Your task to perform on an android device: Search for Mexican restaurants on Maps Image 0: 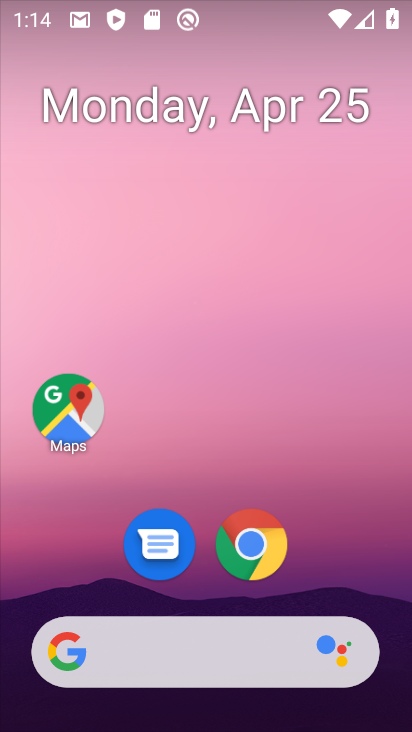
Step 0: click (66, 418)
Your task to perform on an android device: Search for Mexican restaurants on Maps Image 1: 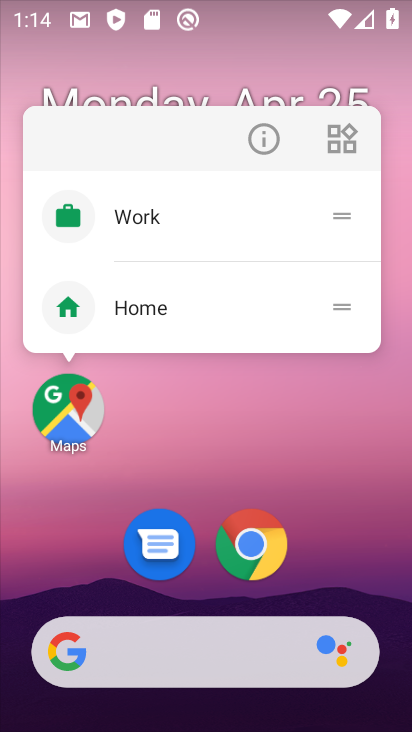
Step 1: drag from (29, 421) to (75, 421)
Your task to perform on an android device: Search for Mexican restaurants on Maps Image 2: 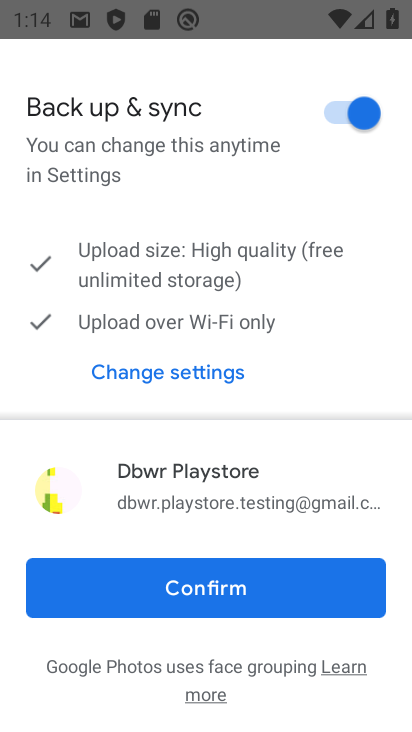
Step 2: press back button
Your task to perform on an android device: Search for Mexican restaurants on Maps Image 3: 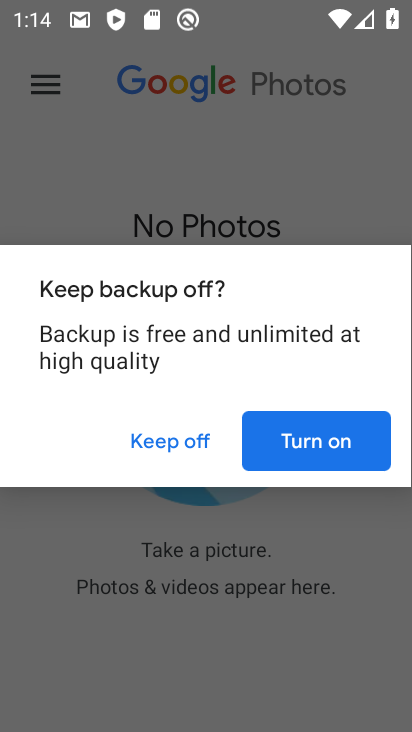
Step 3: press back button
Your task to perform on an android device: Search for Mexican restaurants on Maps Image 4: 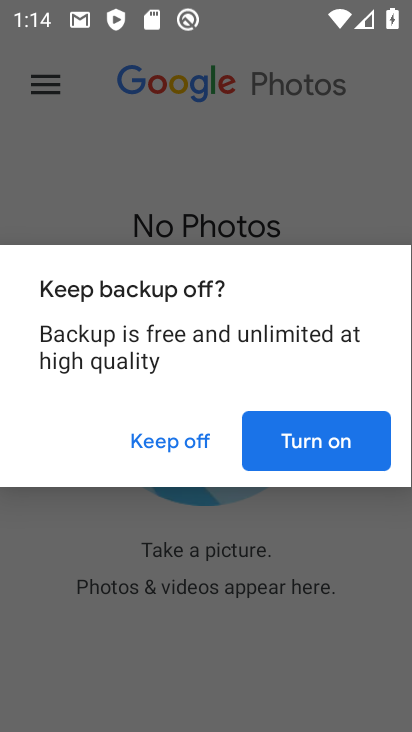
Step 4: click (174, 445)
Your task to perform on an android device: Search for Mexican restaurants on Maps Image 5: 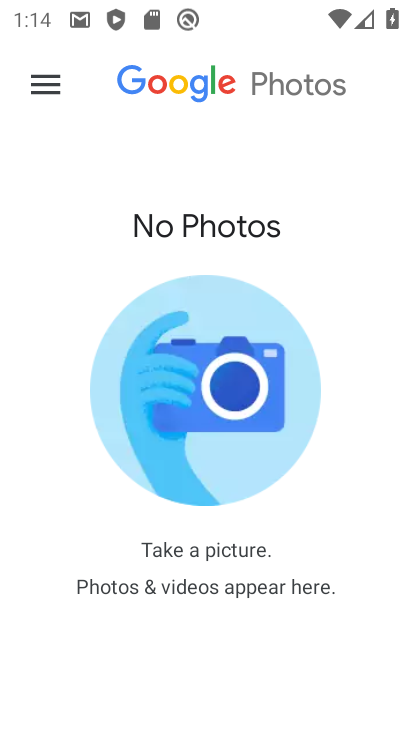
Step 5: press back button
Your task to perform on an android device: Search for Mexican restaurants on Maps Image 6: 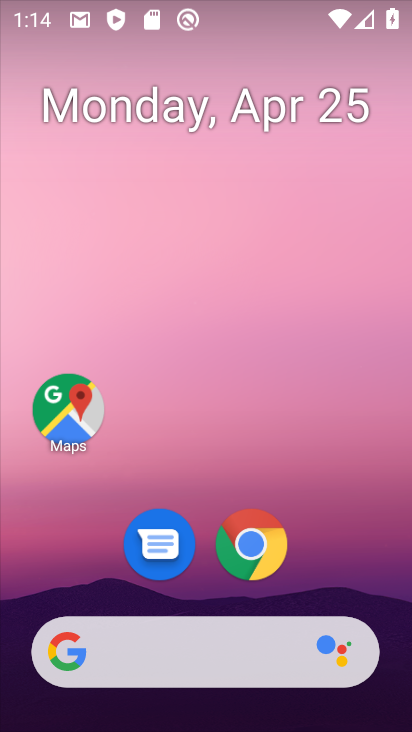
Step 6: click (68, 420)
Your task to perform on an android device: Search for Mexican restaurants on Maps Image 7: 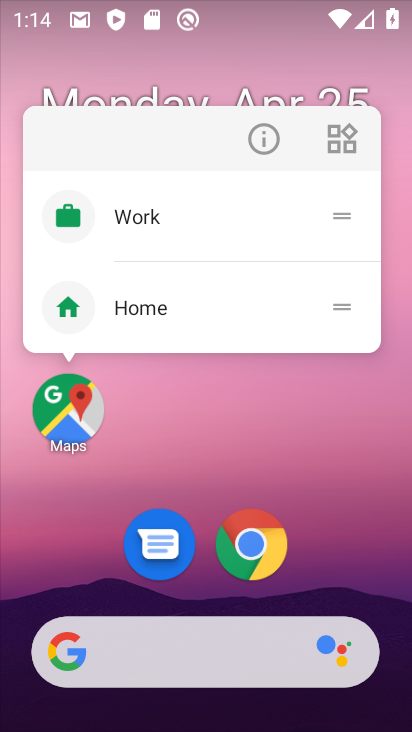
Step 7: click (83, 407)
Your task to perform on an android device: Search for Mexican restaurants on Maps Image 8: 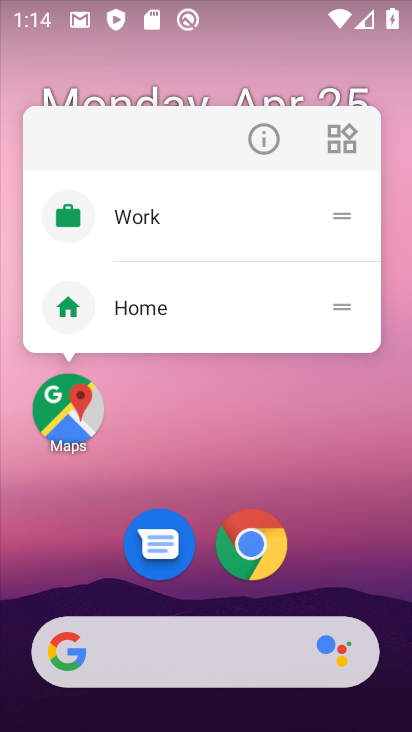
Step 8: click (83, 407)
Your task to perform on an android device: Search for Mexican restaurants on Maps Image 9: 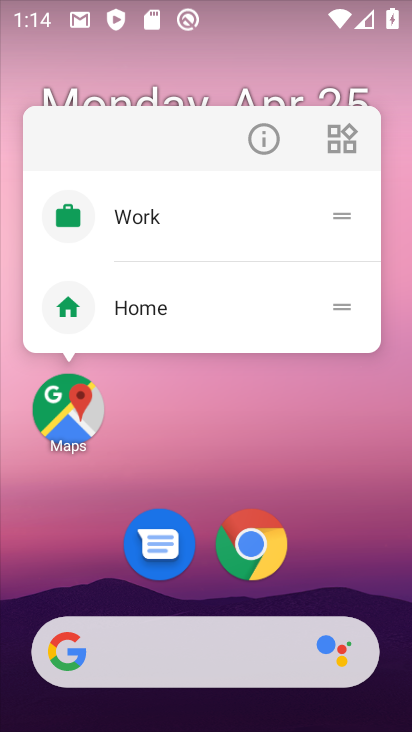
Step 9: click (80, 418)
Your task to perform on an android device: Search for Mexican restaurants on Maps Image 10: 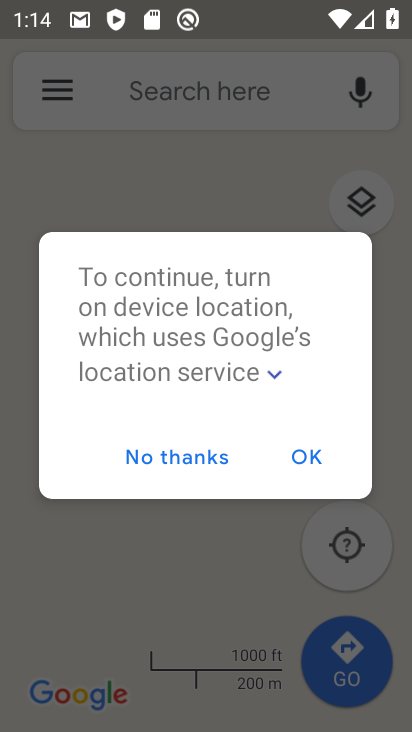
Step 10: click (329, 446)
Your task to perform on an android device: Search for Mexican restaurants on Maps Image 11: 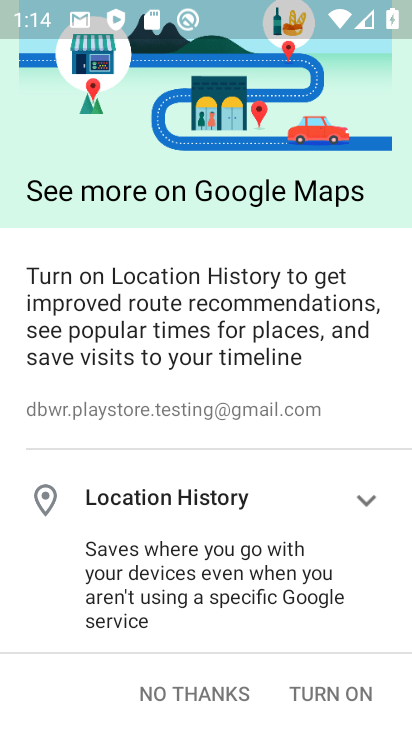
Step 11: click (239, 695)
Your task to perform on an android device: Search for Mexican restaurants on Maps Image 12: 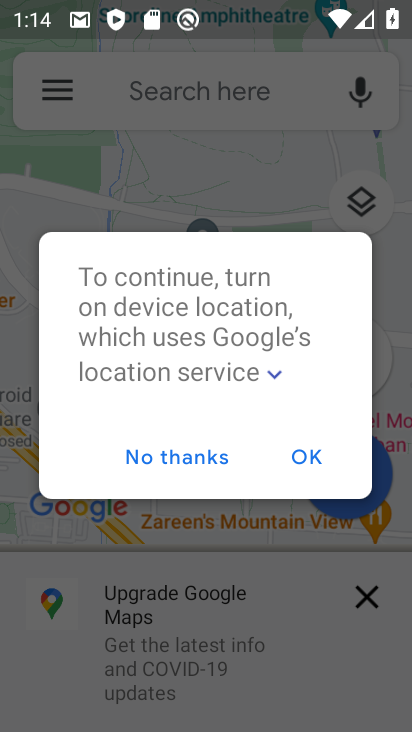
Step 12: click (334, 465)
Your task to perform on an android device: Search for Mexican restaurants on Maps Image 13: 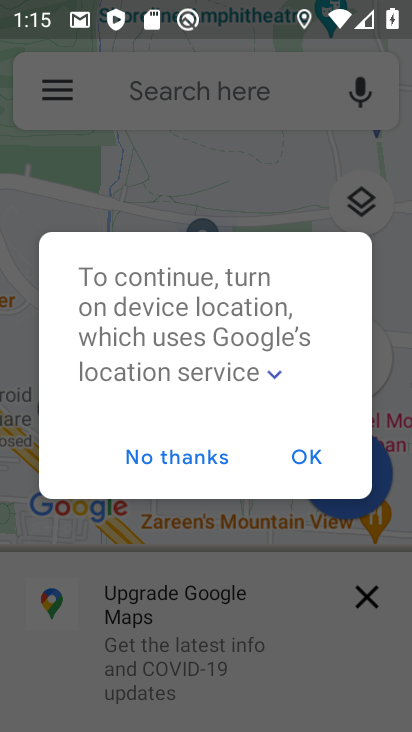
Step 13: click (303, 460)
Your task to perform on an android device: Search for Mexican restaurants on Maps Image 14: 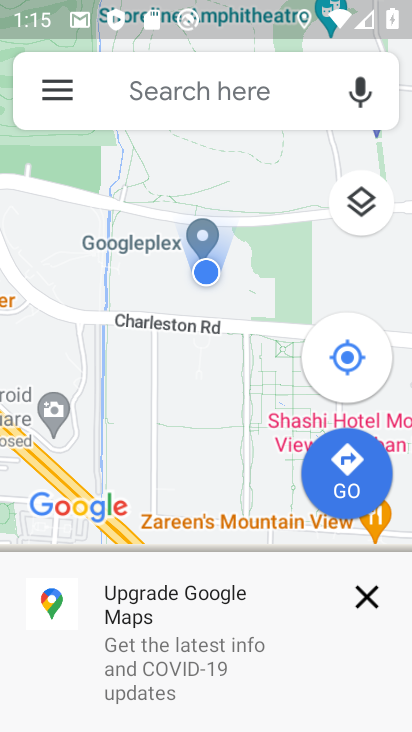
Step 14: click (370, 598)
Your task to perform on an android device: Search for Mexican restaurants on Maps Image 15: 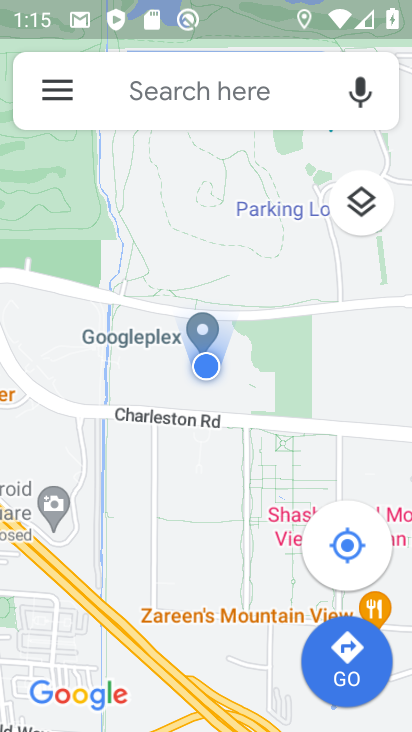
Step 15: click (190, 115)
Your task to perform on an android device: Search for Mexican restaurants on Maps Image 16: 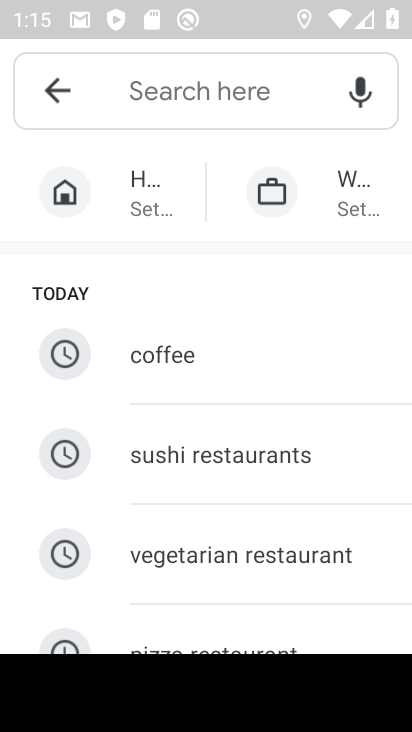
Step 16: type "Mexican restaurants "
Your task to perform on an android device: Search for Mexican restaurants on Maps Image 17: 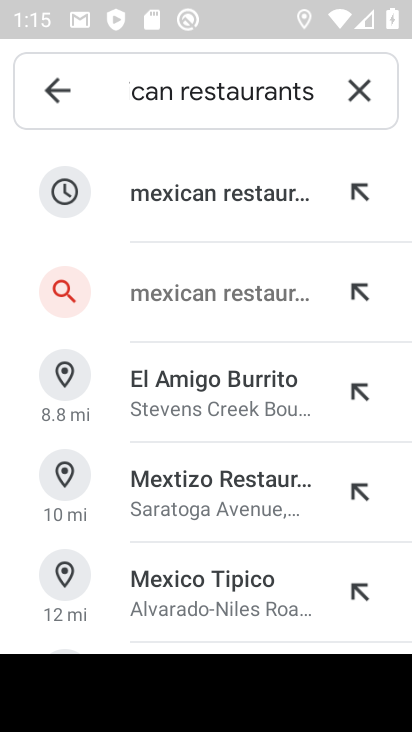
Step 17: click (184, 214)
Your task to perform on an android device: Search for Mexican restaurants on Maps Image 18: 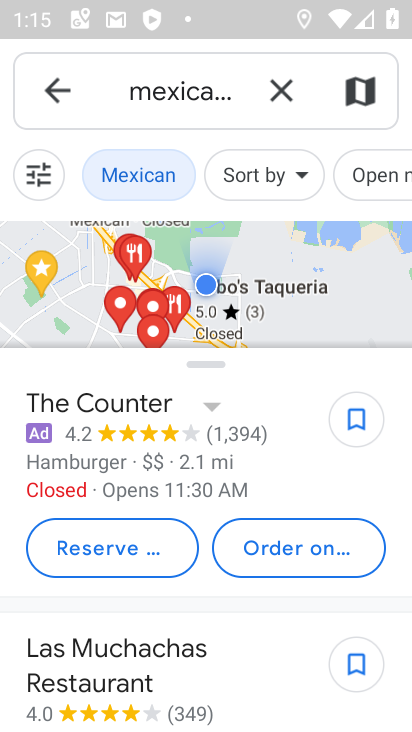
Step 18: task complete